Your task to perform on an android device: change alarm snooze length Image 0: 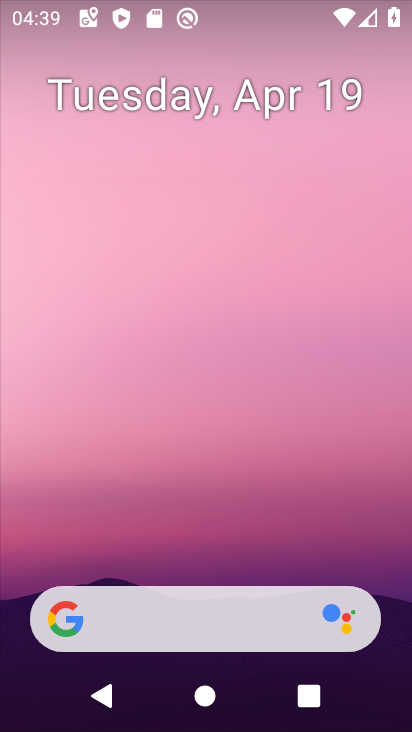
Step 0: drag from (170, 489) to (280, 44)
Your task to perform on an android device: change alarm snooze length Image 1: 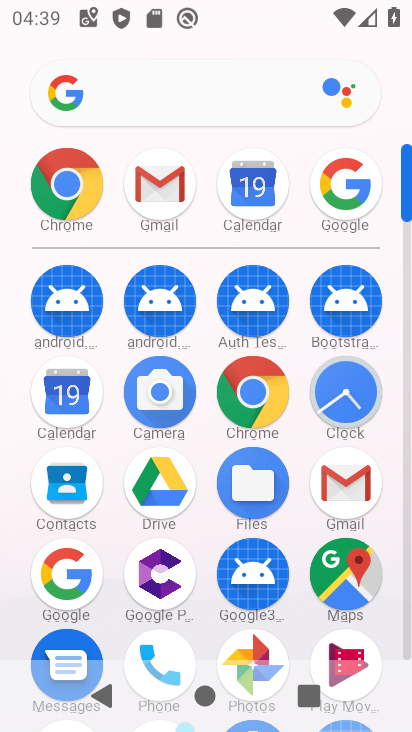
Step 1: click (338, 401)
Your task to perform on an android device: change alarm snooze length Image 2: 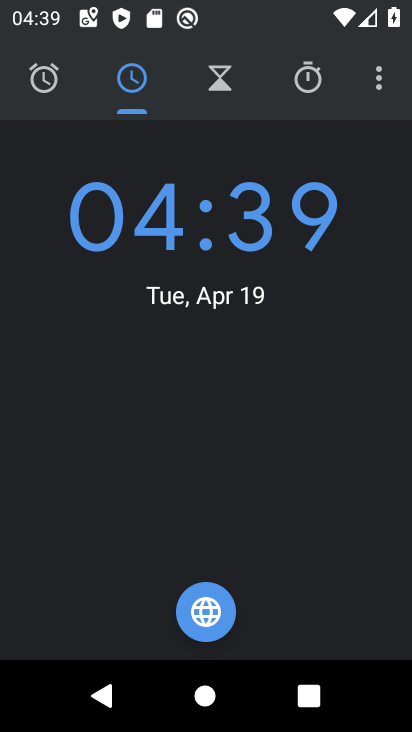
Step 2: click (380, 80)
Your task to perform on an android device: change alarm snooze length Image 3: 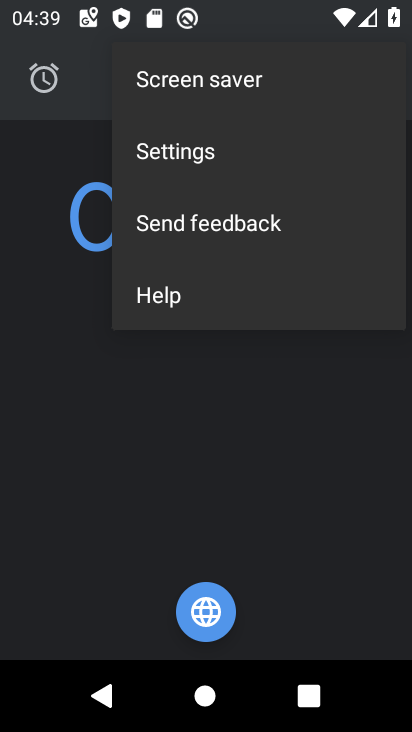
Step 3: click (272, 146)
Your task to perform on an android device: change alarm snooze length Image 4: 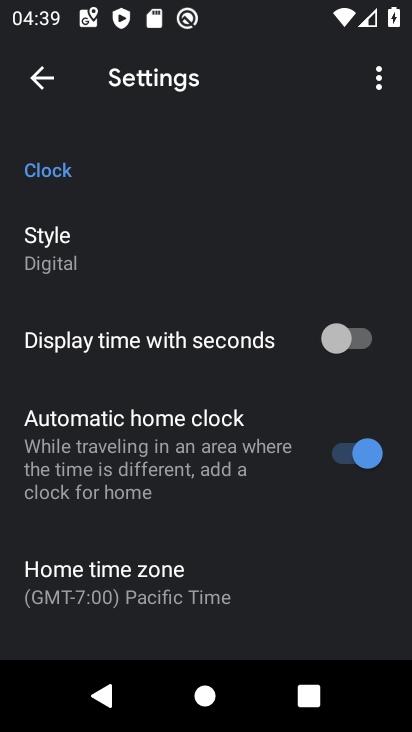
Step 4: drag from (160, 372) to (172, 187)
Your task to perform on an android device: change alarm snooze length Image 5: 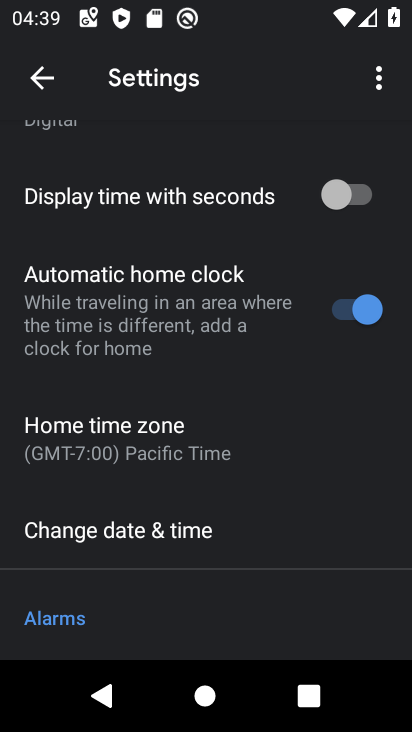
Step 5: drag from (129, 404) to (180, 185)
Your task to perform on an android device: change alarm snooze length Image 6: 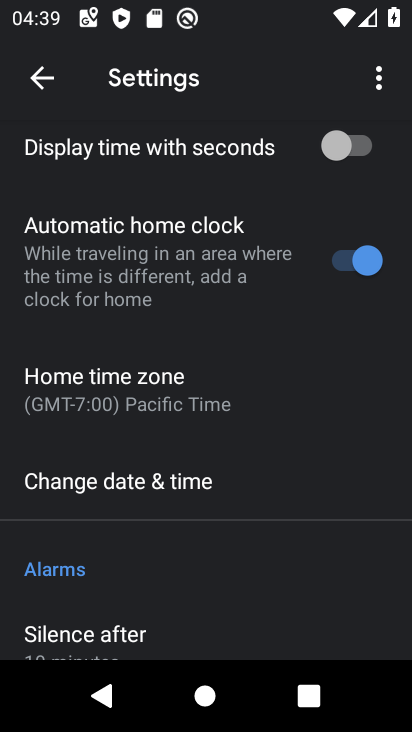
Step 6: drag from (127, 349) to (167, 143)
Your task to perform on an android device: change alarm snooze length Image 7: 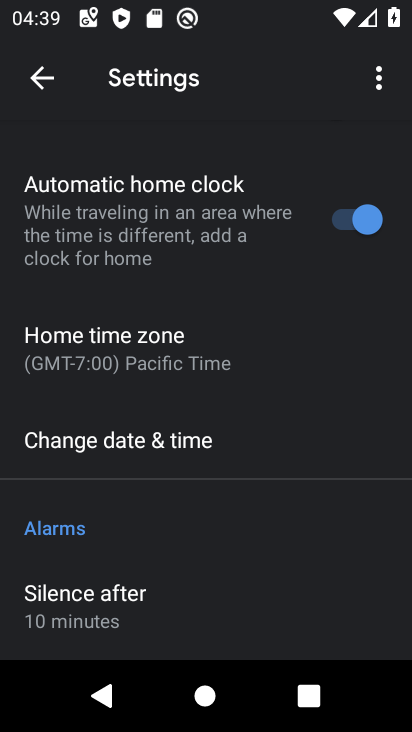
Step 7: drag from (105, 396) to (139, 163)
Your task to perform on an android device: change alarm snooze length Image 8: 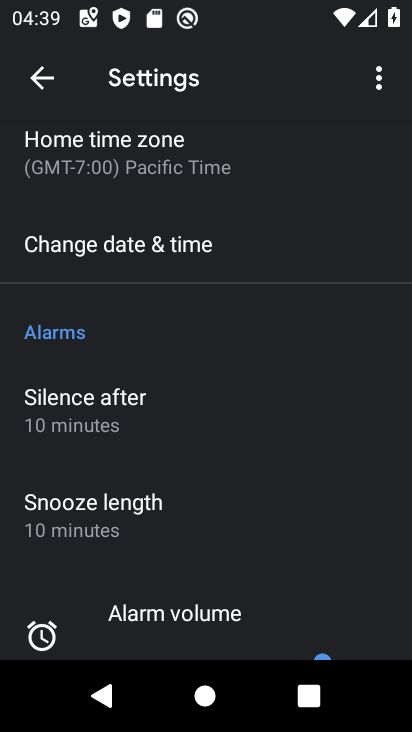
Step 8: click (108, 512)
Your task to perform on an android device: change alarm snooze length Image 9: 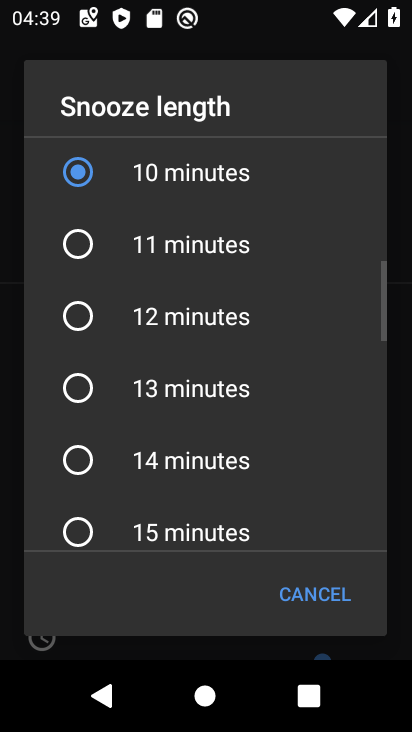
Step 9: click (94, 525)
Your task to perform on an android device: change alarm snooze length Image 10: 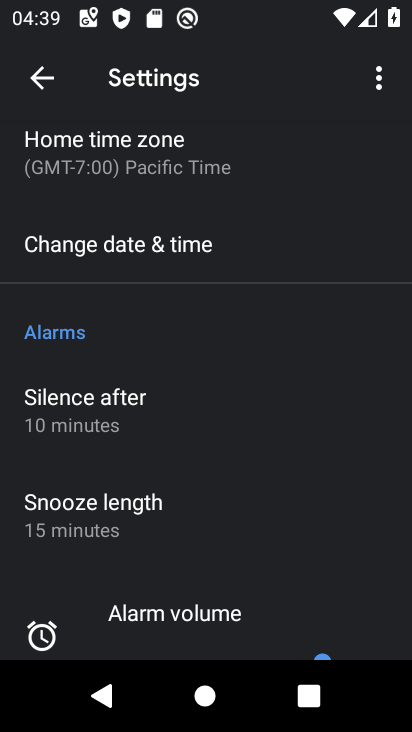
Step 10: task complete